Your task to perform on an android device: change the clock display to show seconds Image 0: 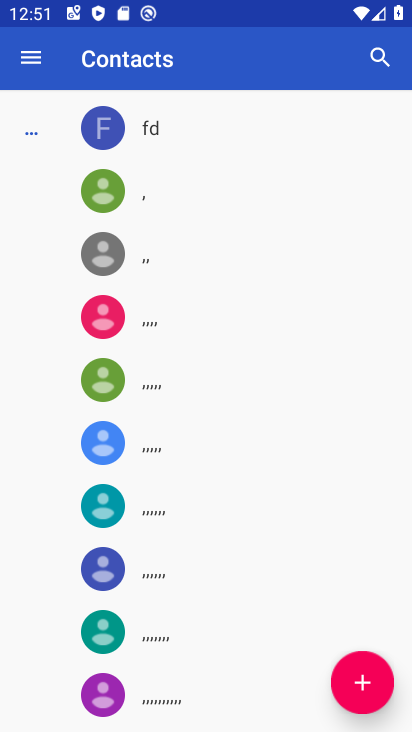
Step 0: press home button
Your task to perform on an android device: change the clock display to show seconds Image 1: 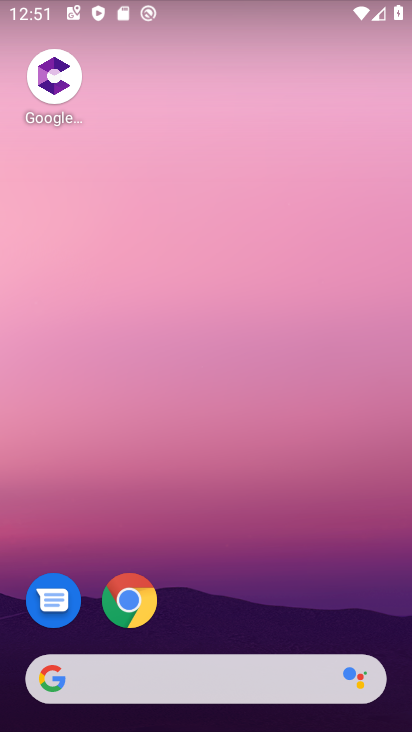
Step 1: drag from (204, 535) to (242, 151)
Your task to perform on an android device: change the clock display to show seconds Image 2: 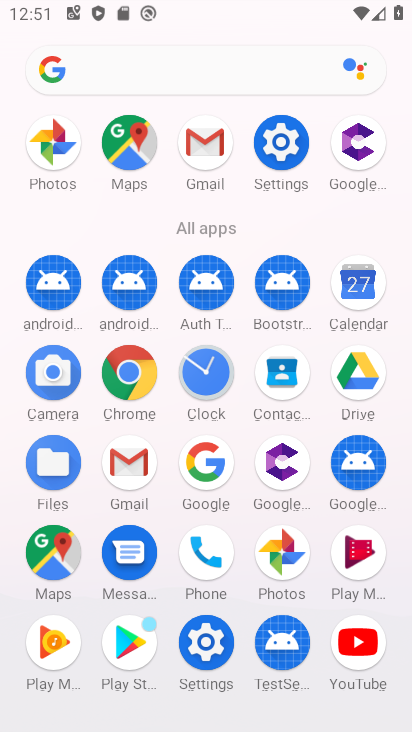
Step 2: click (199, 369)
Your task to perform on an android device: change the clock display to show seconds Image 3: 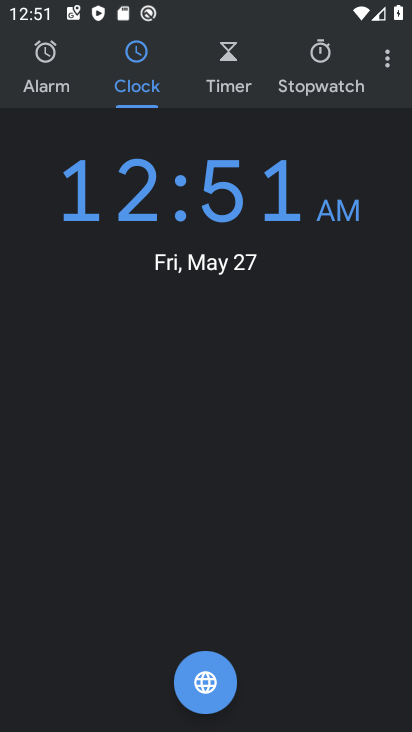
Step 3: click (375, 72)
Your task to perform on an android device: change the clock display to show seconds Image 4: 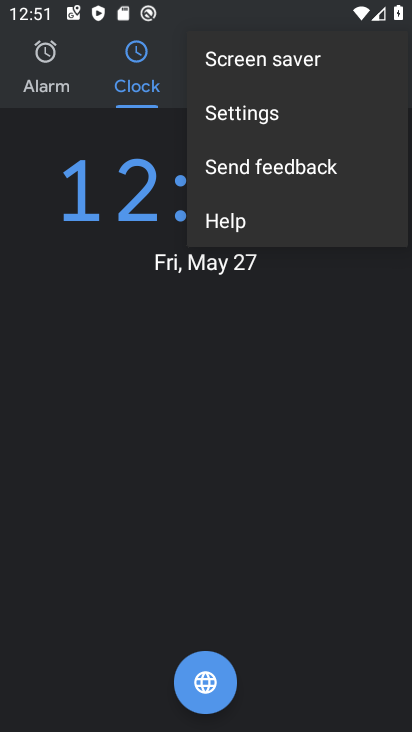
Step 4: click (369, 101)
Your task to perform on an android device: change the clock display to show seconds Image 5: 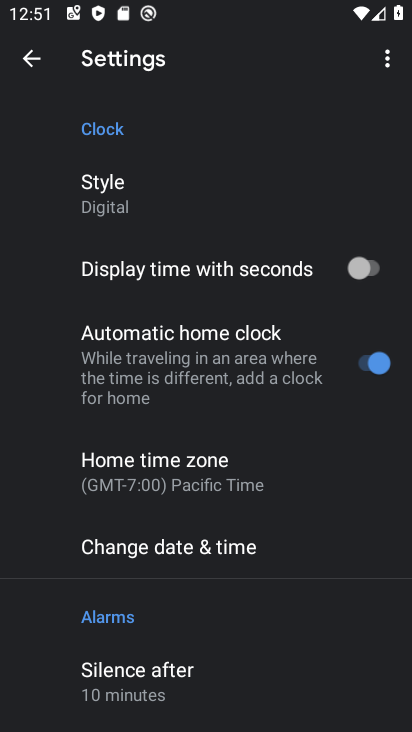
Step 5: drag from (193, 630) to (237, 193)
Your task to perform on an android device: change the clock display to show seconds Image 6: 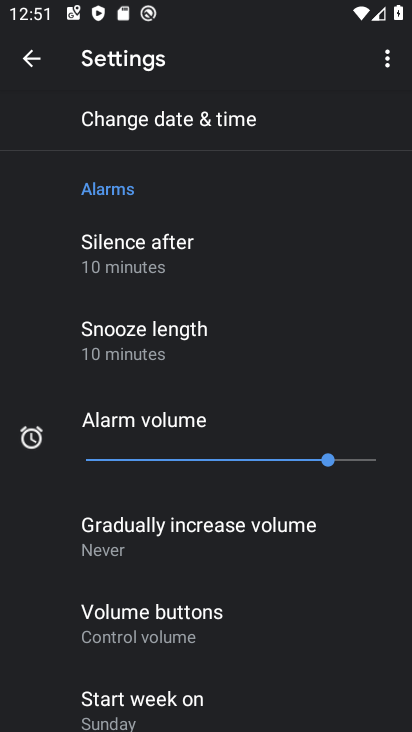
Step 6: drag from (102, 421) to (161, 223)
Your task to perform on an android device: change the clock display to show seconds Image 7: 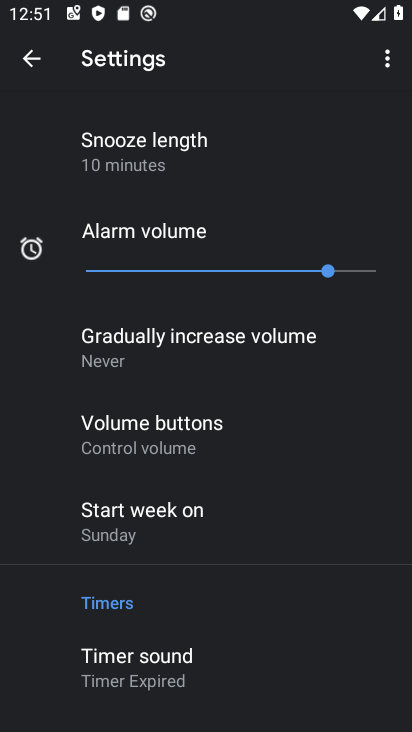
Step 7: drag from (212, 588) to (327, 172)
Your task to perform on an android device: change the clock display to show seconds Image 8: 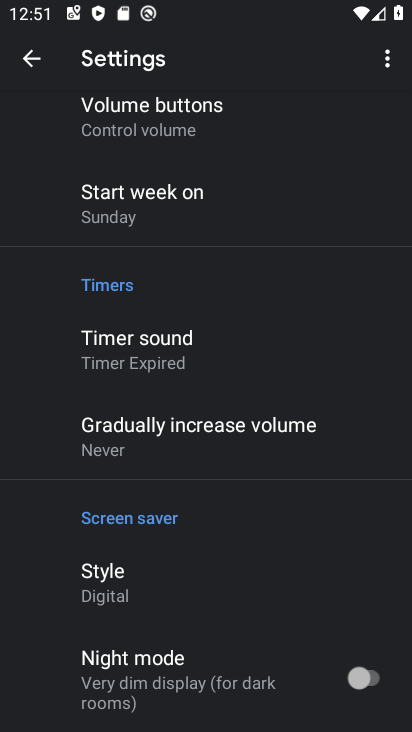
Step 8: drag from (299, 606) to (332, 130)
Your task to perform on an android device: change the clock display to show seconds Image 9: 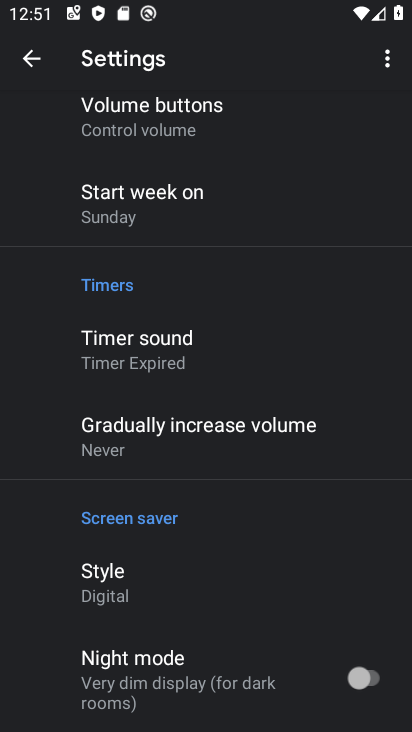
Step 9: drag from (238, 174) to (250, 716)
Your task to perform on an android device: change the clock display to show seconds Image 10: 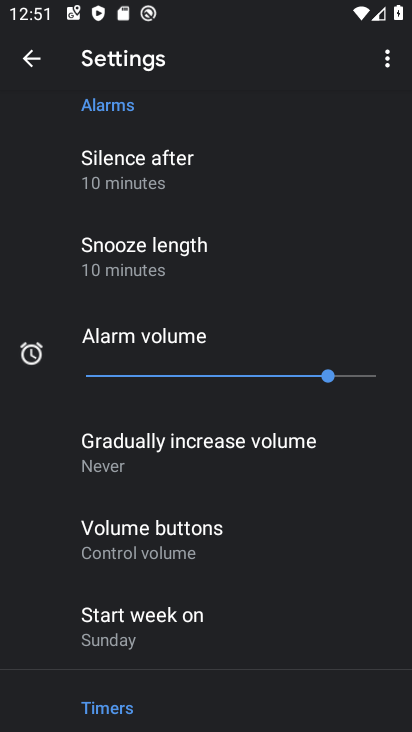
Step 10: drag from (263, 206) to (262, 648)
Your task to perform on an android device: change the clock display to show seconds Image 11: 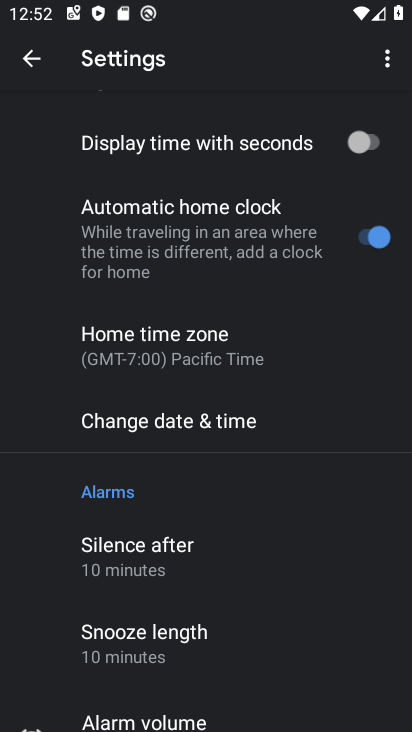
Step 11: drag from (161, 189) to (203, 620)
Your task to perform on an android device: change the clock display to show seconds Image 12: 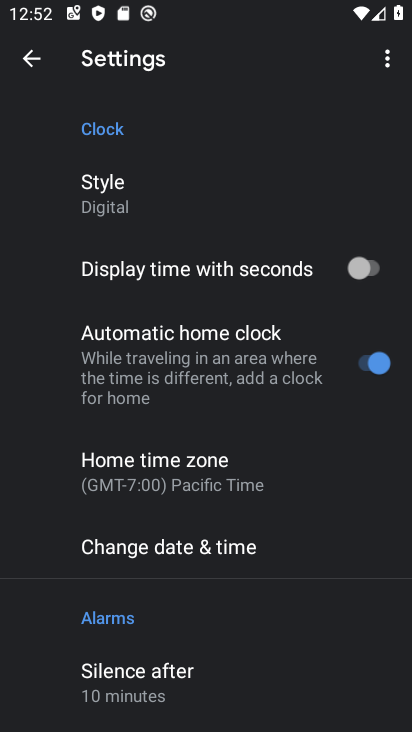
Step 12: click (206, 531)
Your task to perform on an android device: change the clock display to show seconds Image 13: 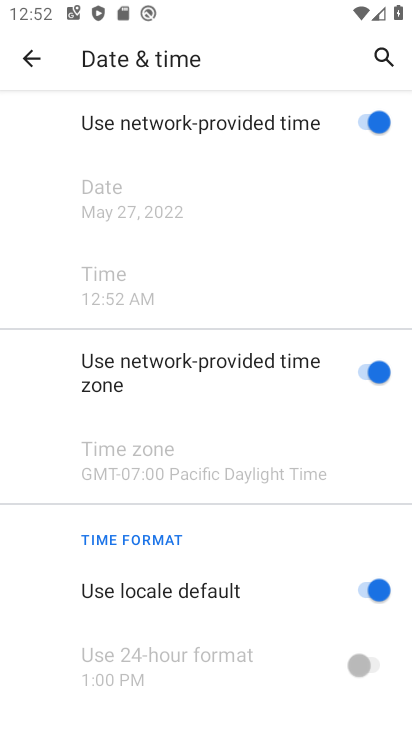
Step 13: task complete